Your task to perform on an android device: View the shopping cart on amazon.com. Add jbl charge 4 to the cart on amazon.com Image 0: 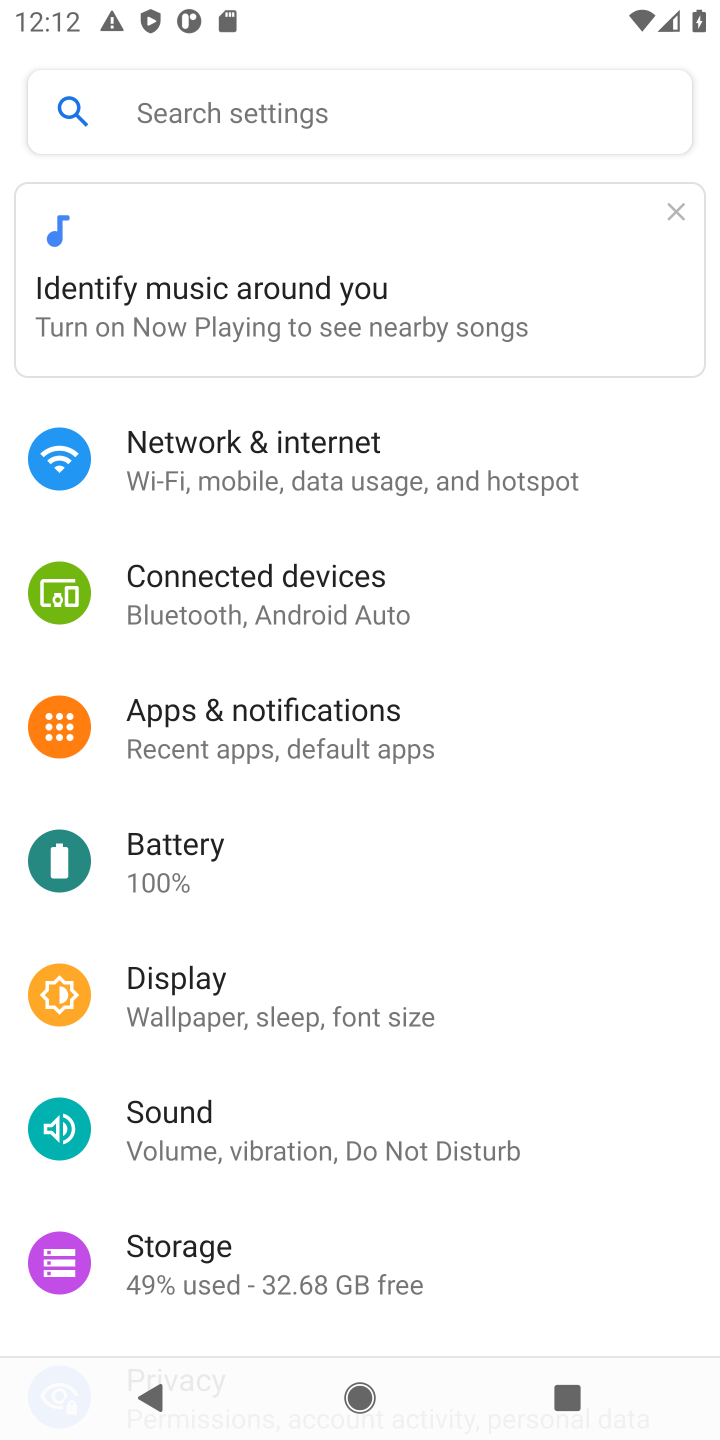
Step 0: press home button
Your task to perform on an android device: View the shopping cart on amazon.com. Add jbl charge 4 to the cart on amazon.com Image 1: 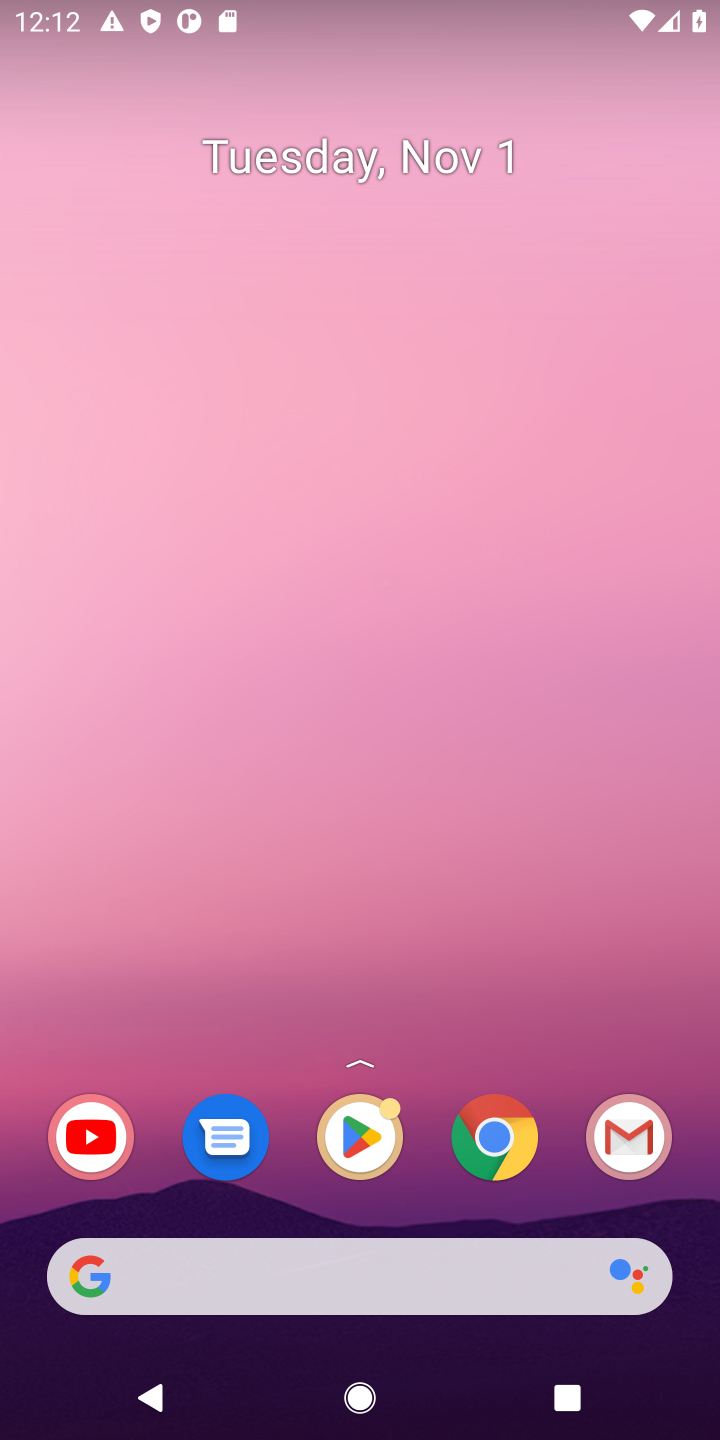
Step 1: click (482, 1111)
Your task to perform on an android device: View the shopping cart on amazon.com. Add jbl charge 4 to the cart on amazon.com Image 2: 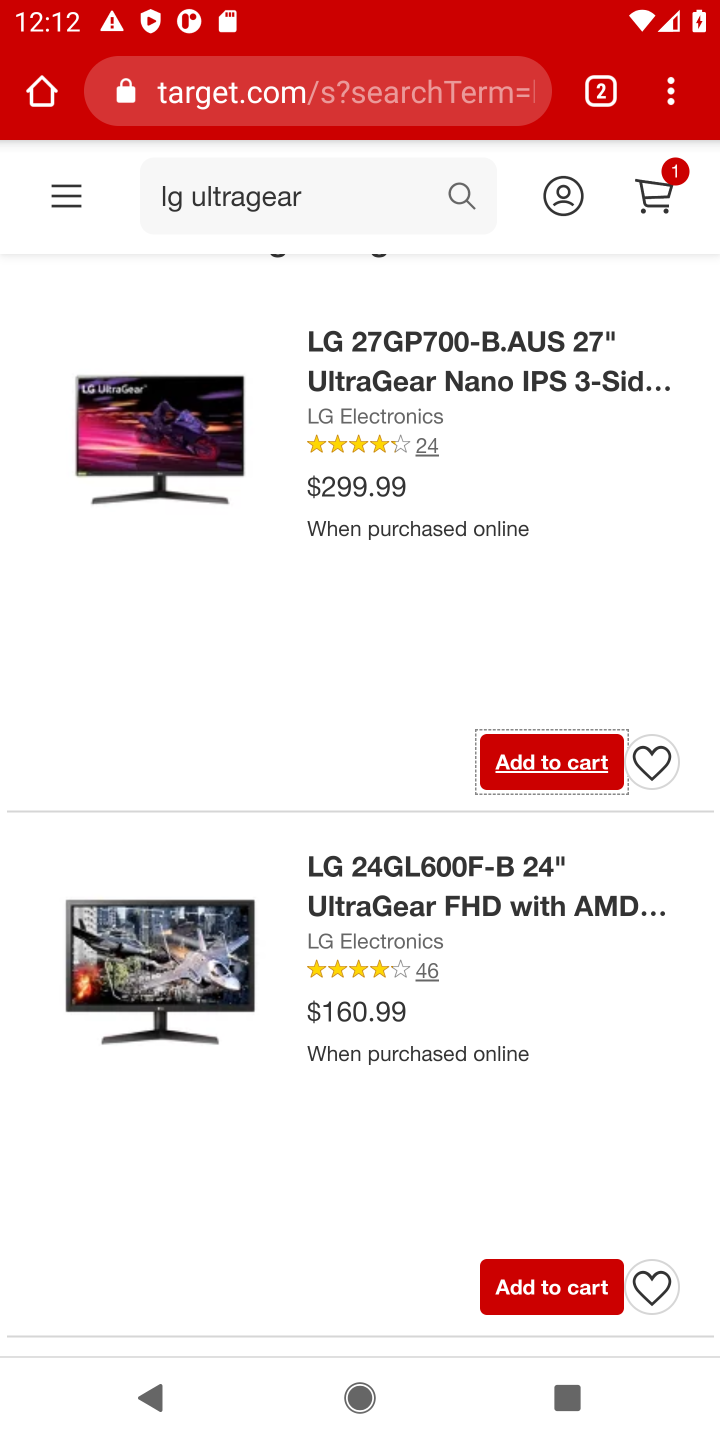
Step 2: click (597, 94)
Your task to perform on an android device: View the shopping cart on amazon.com. Add jbl charge 4 to the cart on amazon.com Image 3: 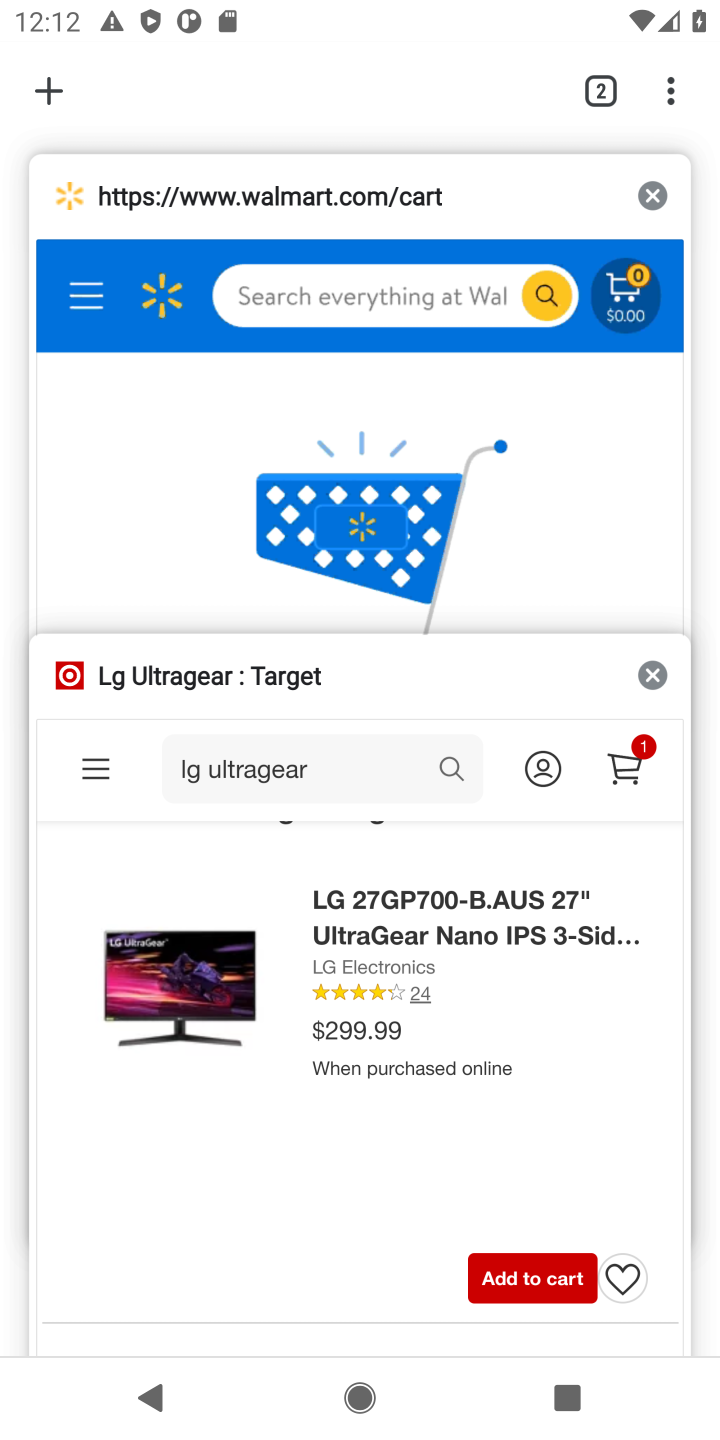
Step 3: click (47, 94)
Your task to perform on an android device: View the shopping cart on amazon.com. Add jbl charge 4 to the cart on amazon.com Image 4: 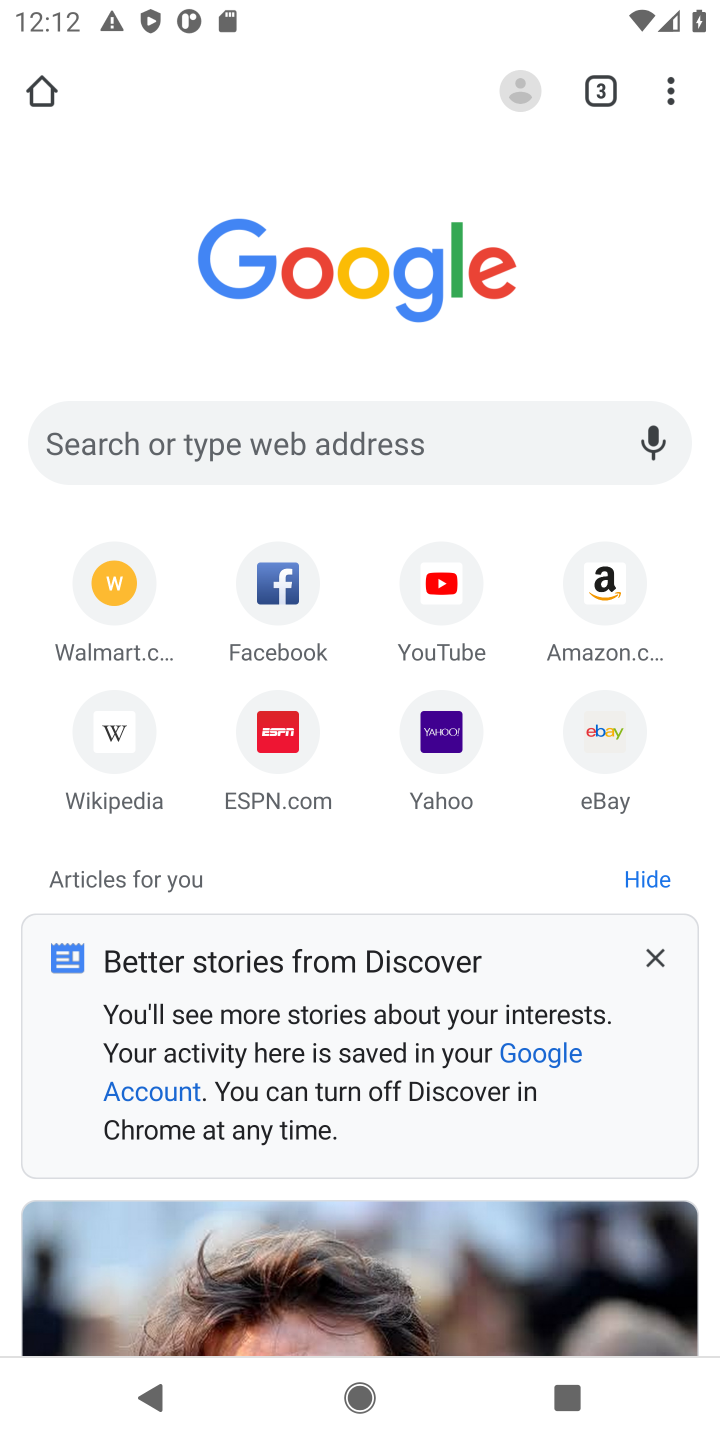
Step 4: click (620, 575)
Your task to perform on an android device: View the shopping cart on amazon.com. Add jbl charge 4 to the cart on amazon.com Image 5: 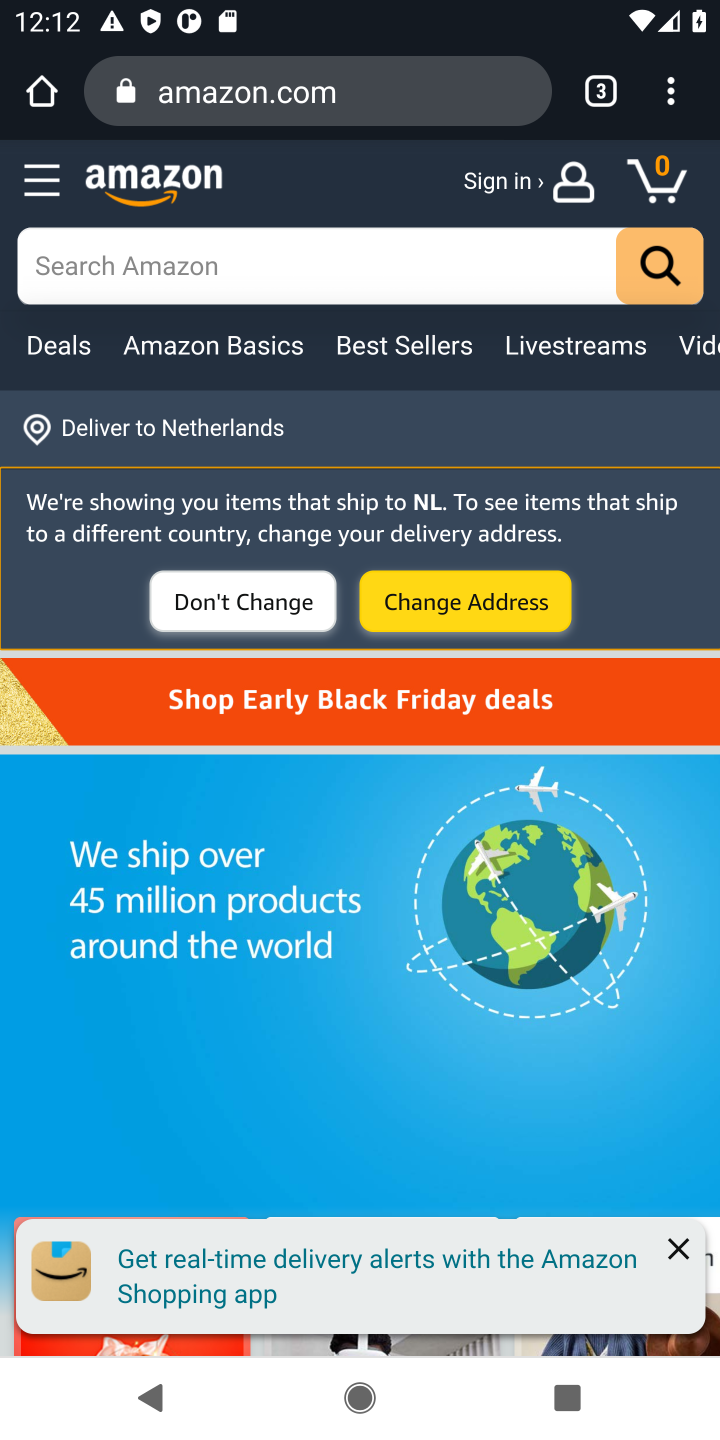
Step 5: click (167, 256)
Your task to perform on an android device: View the shopping cart on amazon.com. Add jbl charge 4 to the cart on amazon.com Image 6: 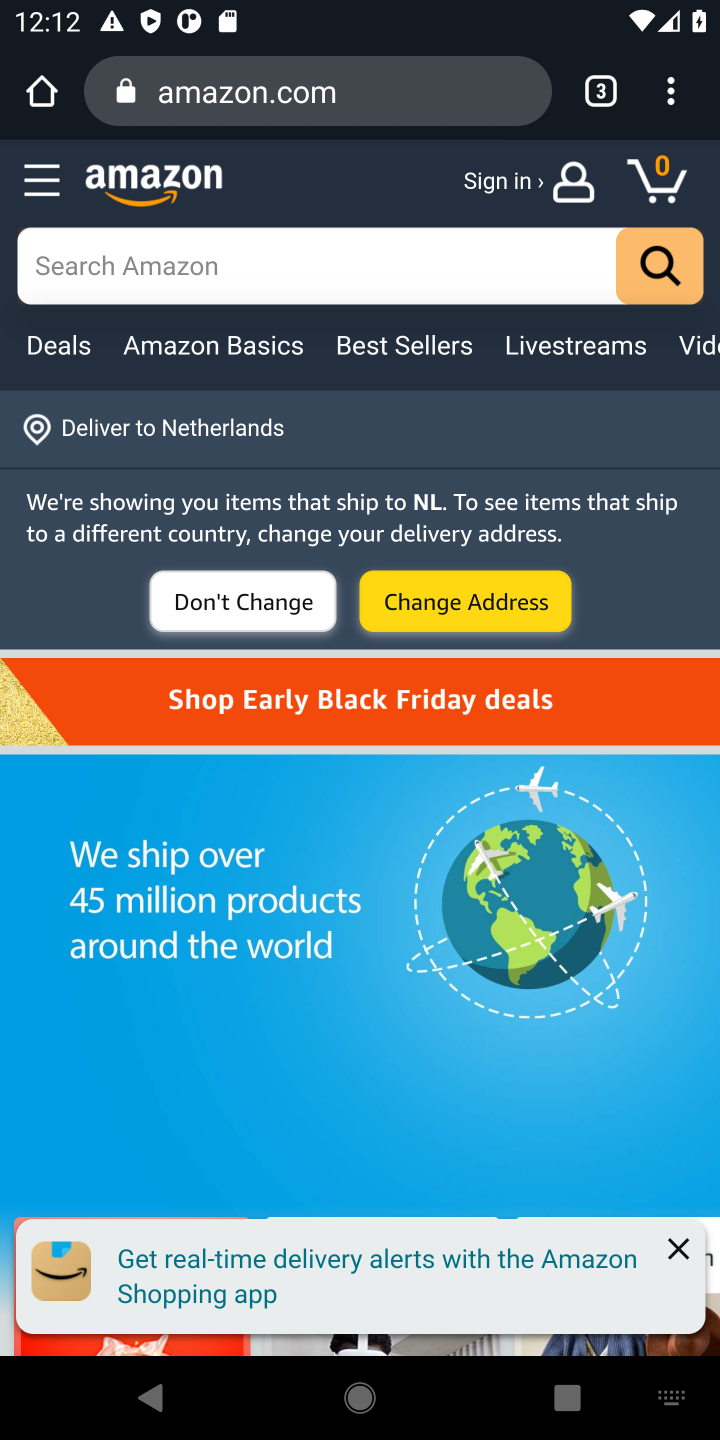
Step 6: type "jbl charge 4"
Your task to perform on an android device: View the shopping cart on amazon.com. Add jbl charge 4 to the cart on amazon.com Image 7: 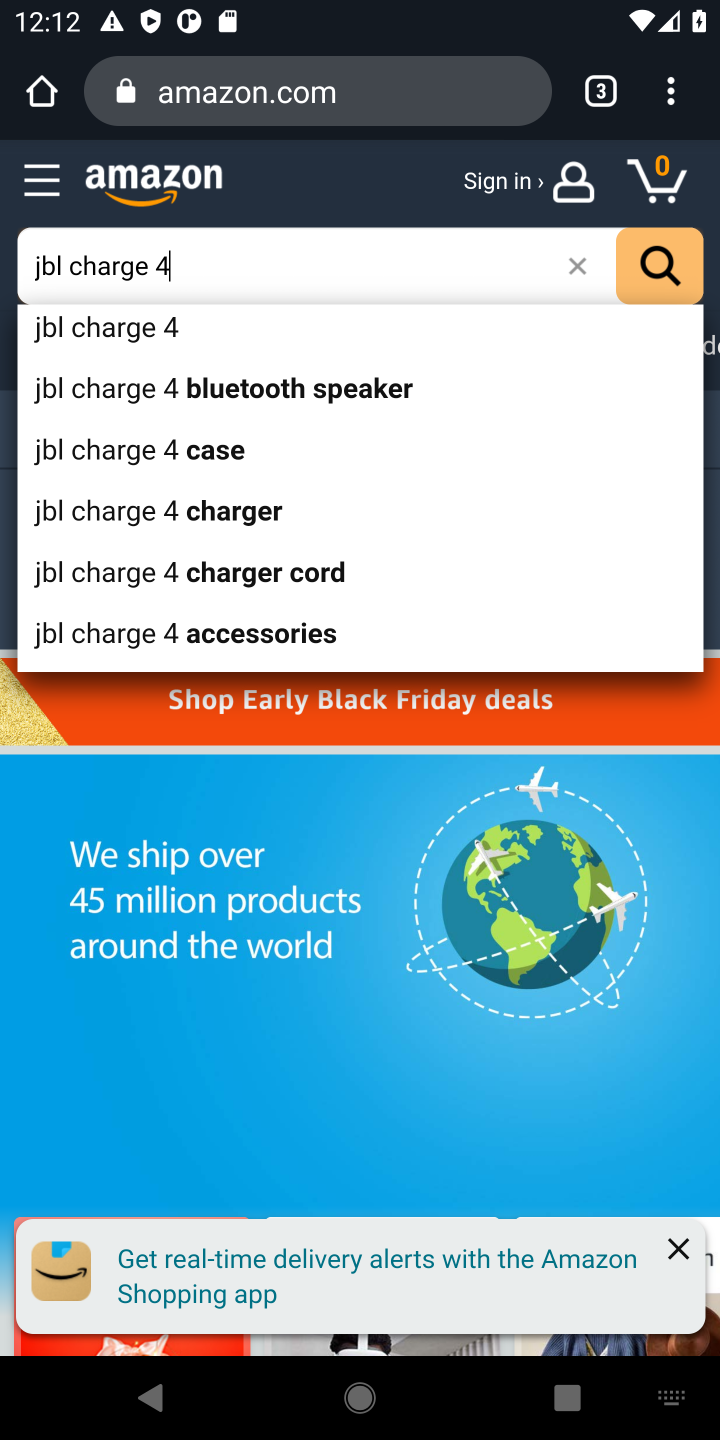
Step 7: click (98, 327)
Your task to perform on an android device: View the shopping cart on amazon.com. Add jbl charge 4 to the cart on amazon.com Image 8: 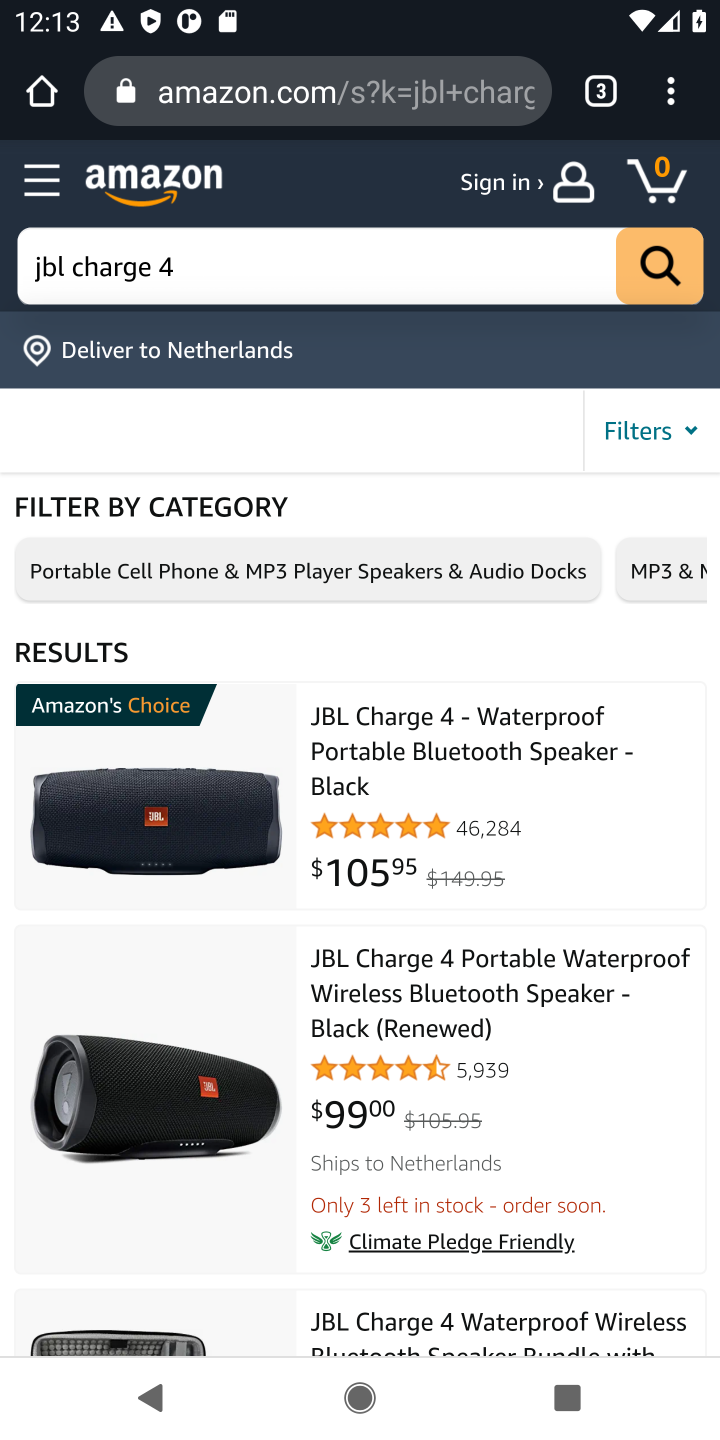
Step 8: click (432, 739)
Your task to perform on an android device: View the shopping cart on amazon.com. Add jbl charge 4 to the cart on amazon.com Image 9: 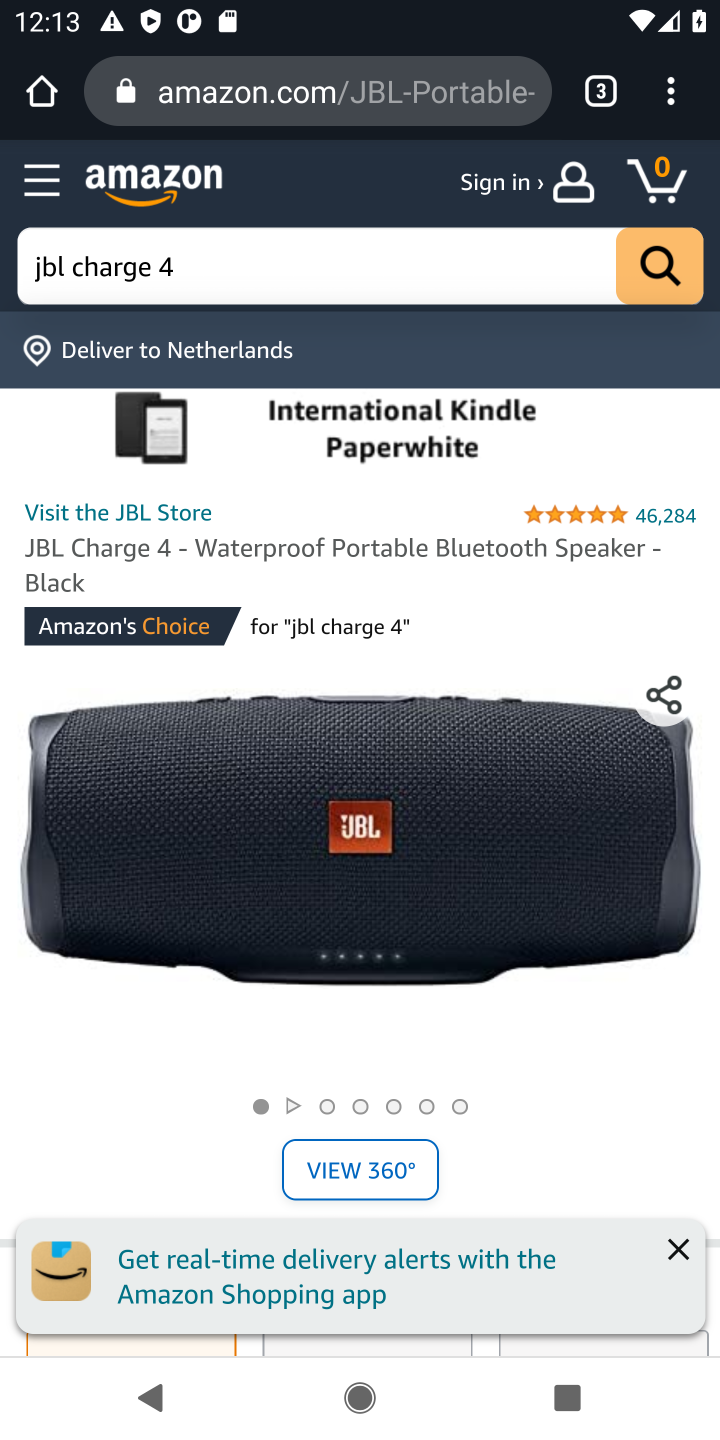
Step 9: click (682, 1240)
Your task to perform on an android device: View the shopping cart on amazon.com. Add jbl charge 4 to the cart on amazon.com Image 10: 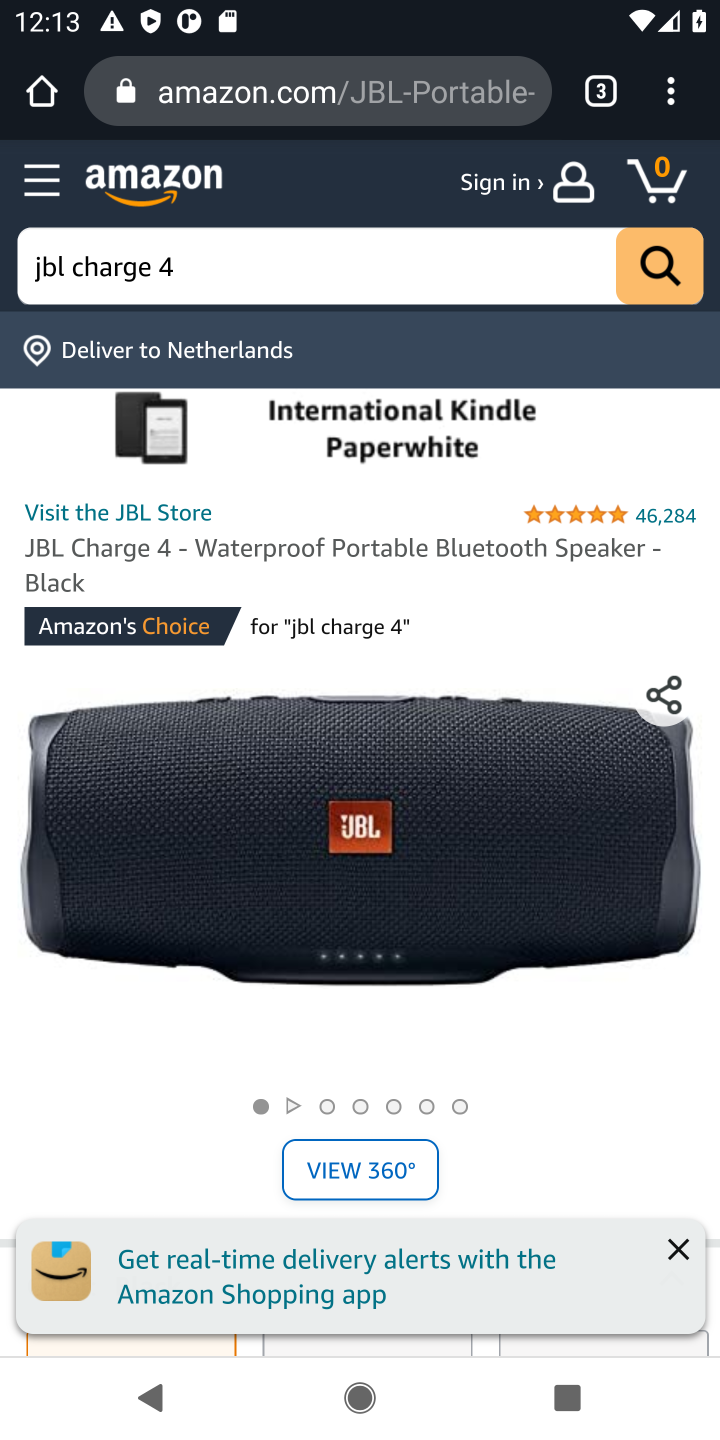
Step 10: drag from (527, 516) to (628, 185)
Your task to perform on an android device: View the shopping cart on amazon.com. Add jbl charge 4 to the cart on amazon.com Image 11: 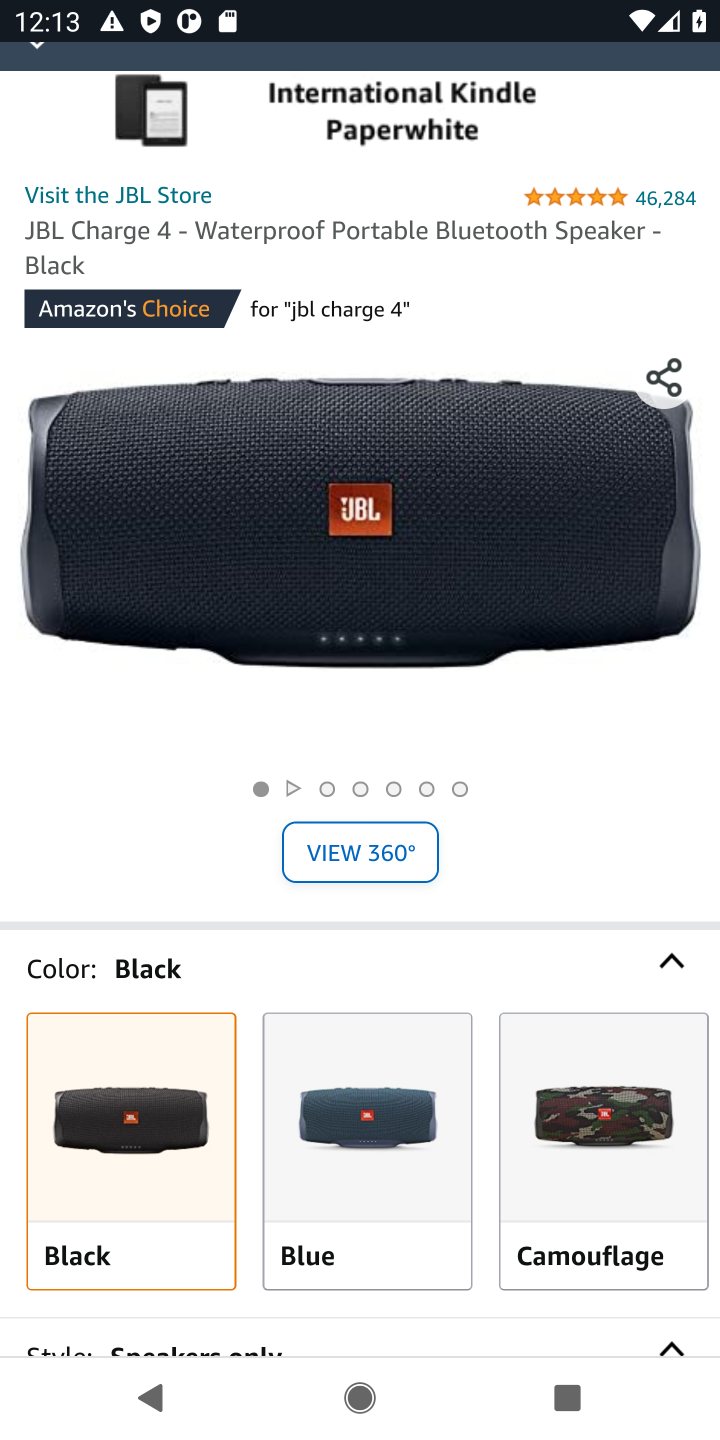
Step 11: drag from (367, 1137) to (551, 144)
Your task to perform on an android device: View the shopping cart on amazon.com. Add jbl charge 4 to the cart on amazon.com Image 12: 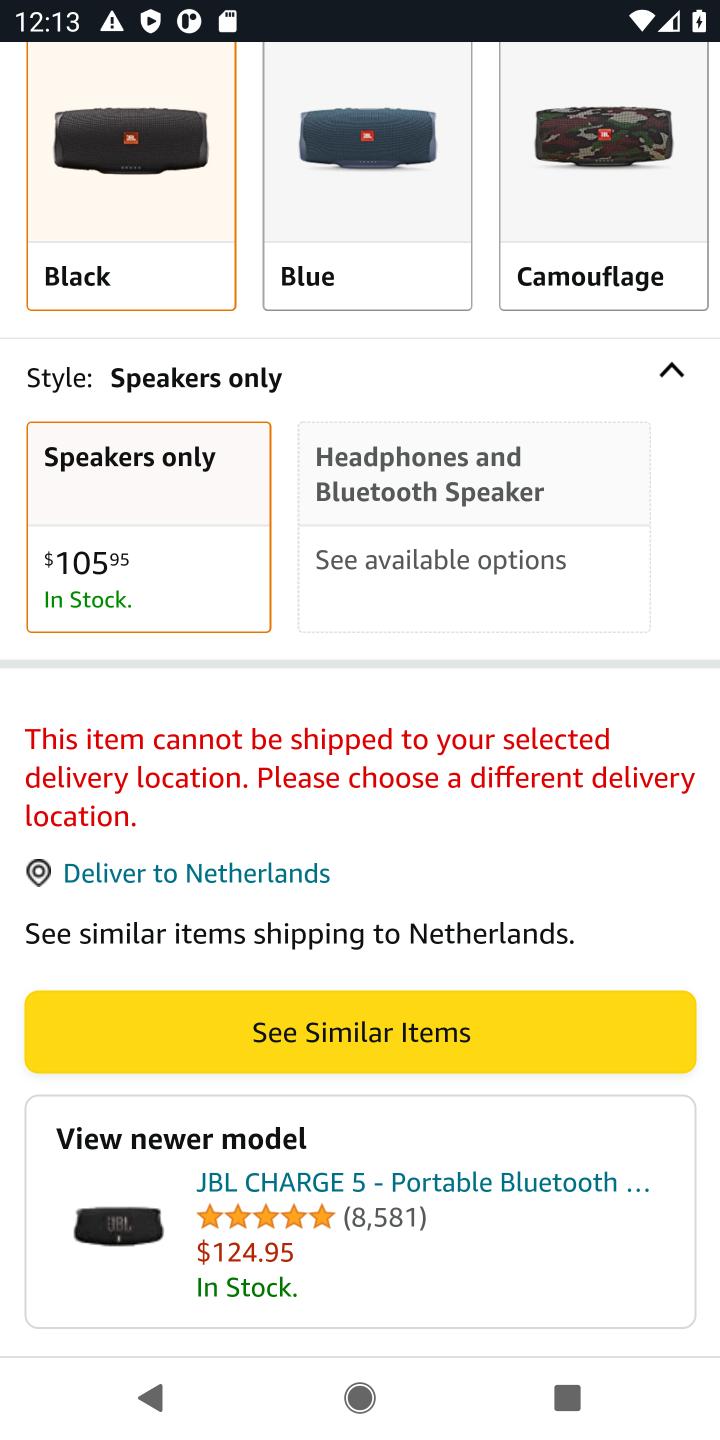
Step 12: drag from (390, 1146) to (469, 219)
Your task to perform on an android device: View the shopping cart on amazon.com. Add jbl charge 4 to the cart on amazon.com Image 13: 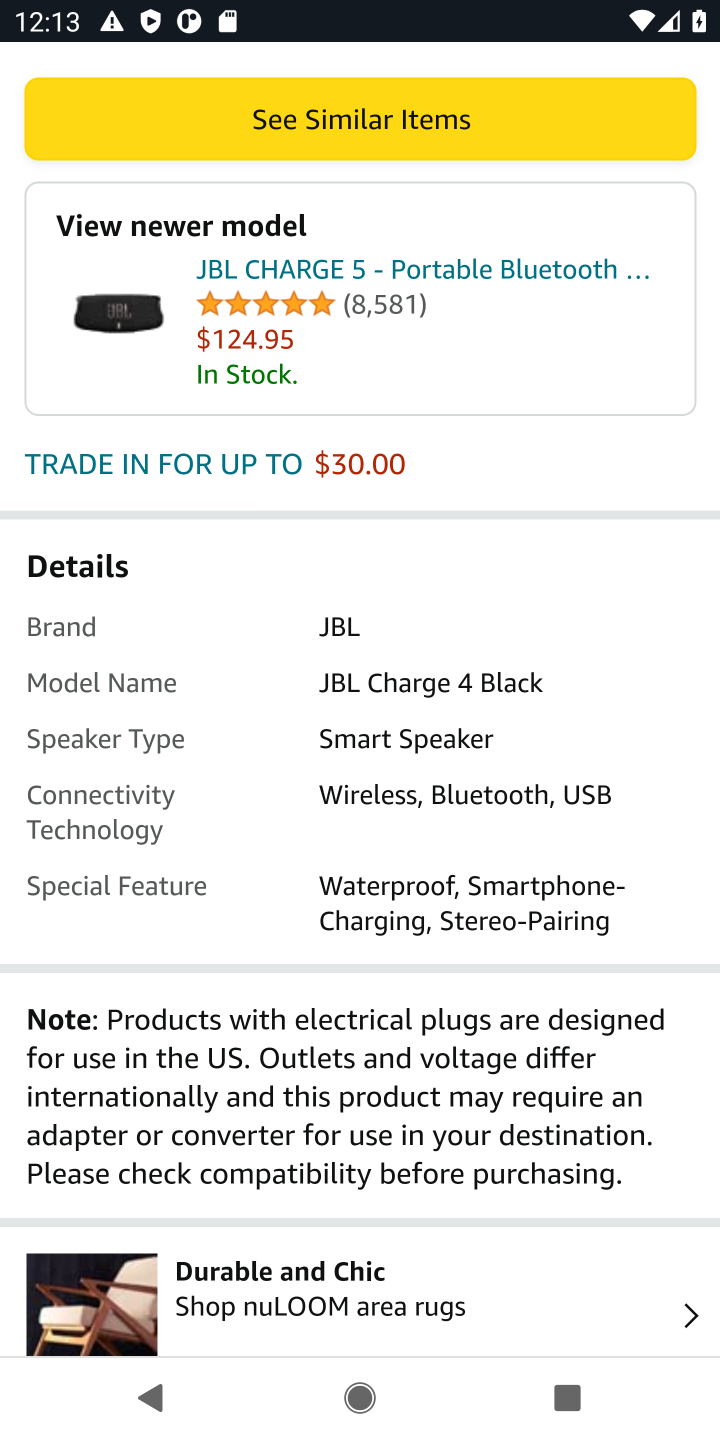
Step 13: drag from (324, 942) to (402, 60)
Your task to perform on an android device: View the shopping cart on amazon.com. Add jbl charge 4 to the cart on amazon.com Image 14: 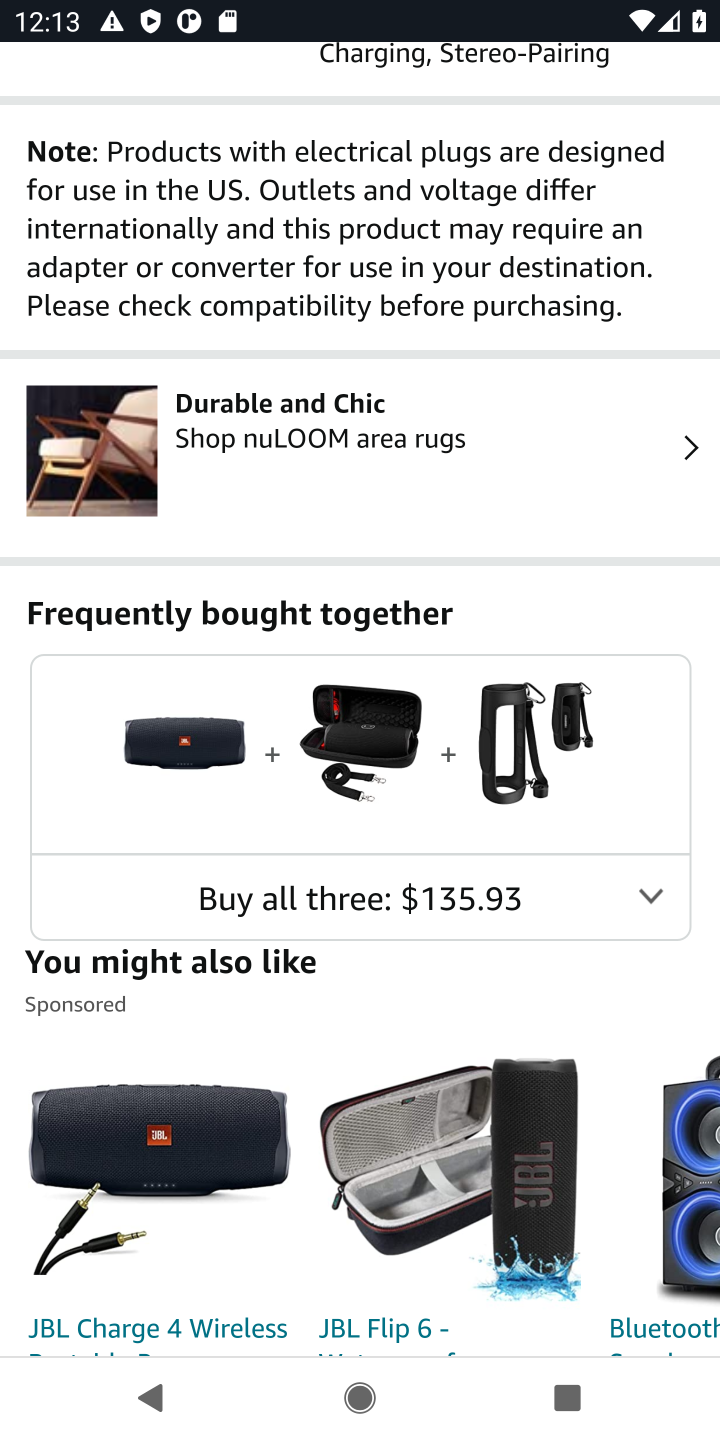
Step 14: drag from (468, 372) to (607, 1263)
Your task to perform on an android device: View the shopping cart on amazon.com. Add jbl charge 4 to the cart on amazon.com Image 15: 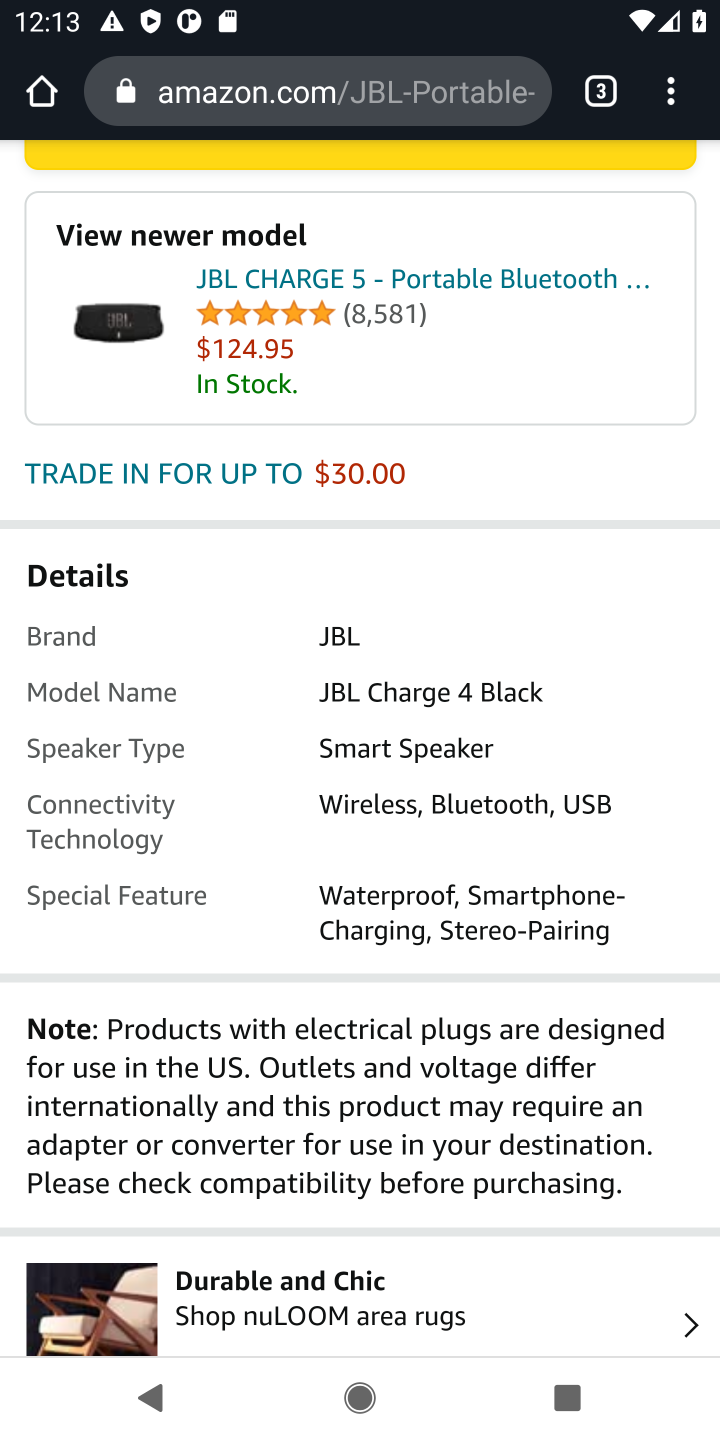
Step 15: drag from (454, 386) to (399, 1057)
Your task to perform on an android device: View the shopping cart on amazon.com. Add jbl charge 4 to the cart on amazon.com Image 16: 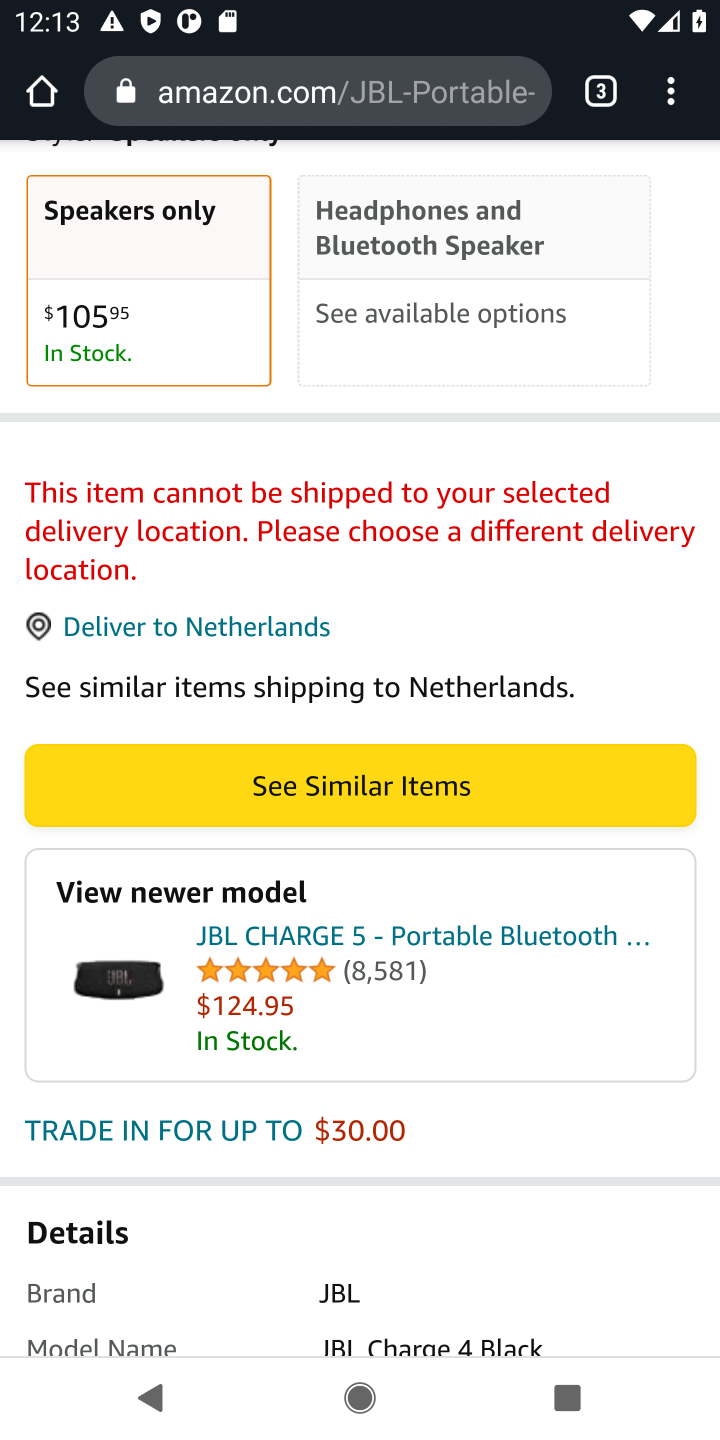
Step 16: click (392, 765)
Your task to perform on an android device: View the shopping cart on amazon.com. Add jbl charge 4 to the cart on amazon.com Image 17: 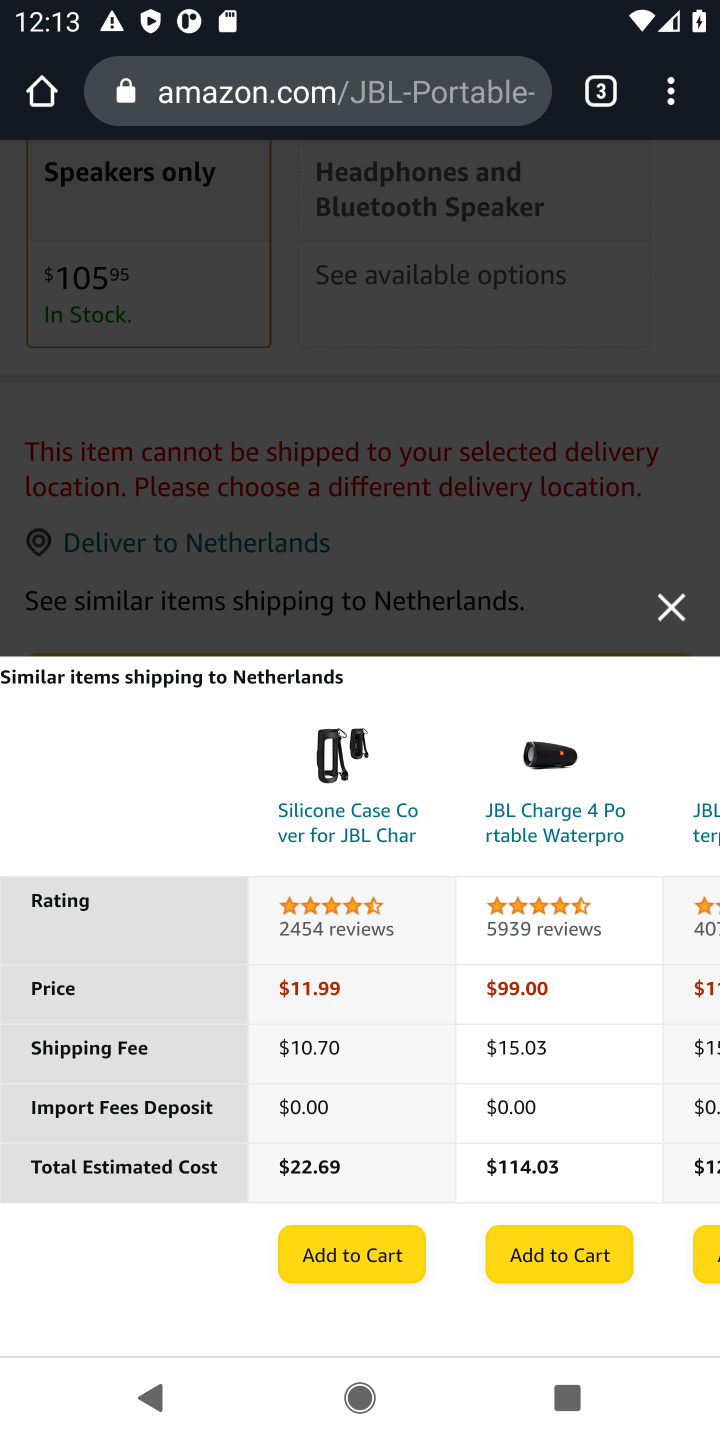
Step 17: click (351, 1251)
Your task to perform on an android device: View the shopping cart on amazon.com. Add jbl charge 4 to the cart on amazon.com Image 18: 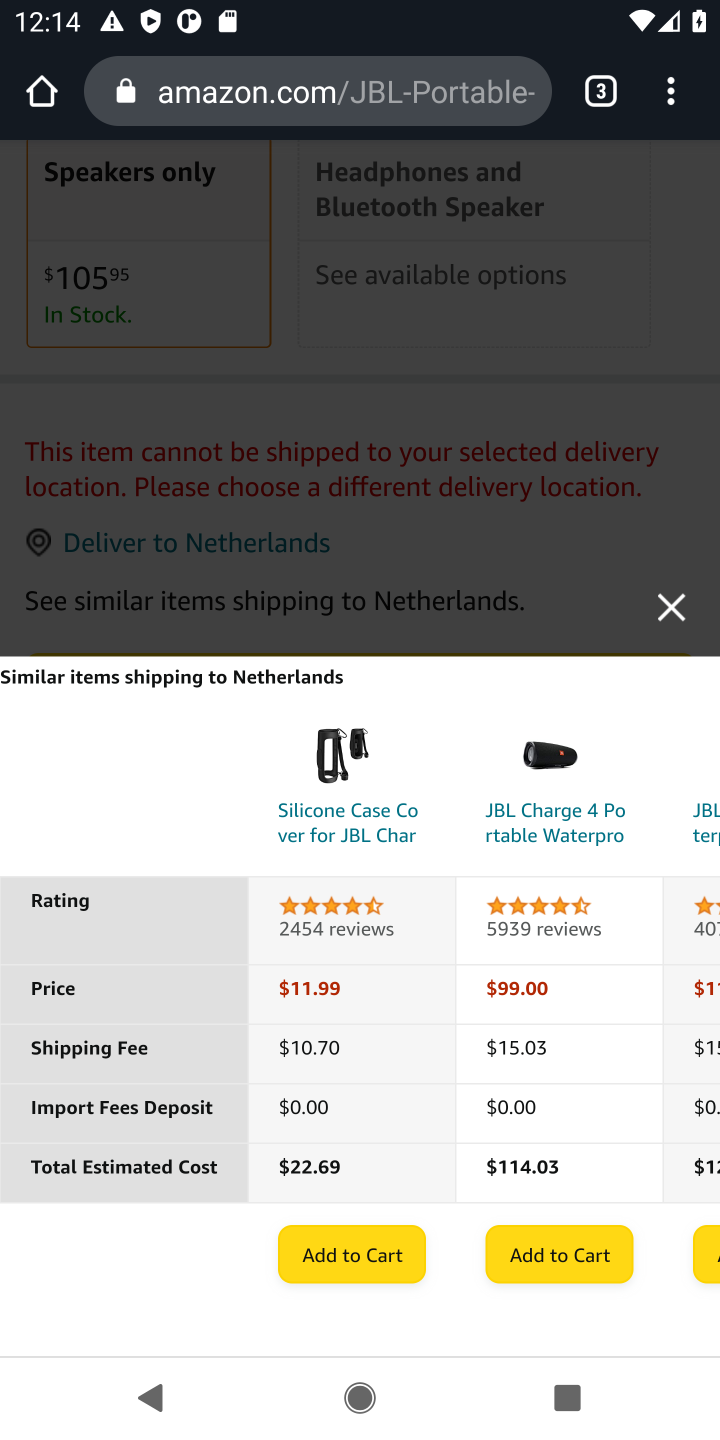
Step 18: click (558, 1254)
Your task to perform on an android device: View the shopping cart on amazon.com. Add jbl charge 4 to the cart on amazon.com Image 19: 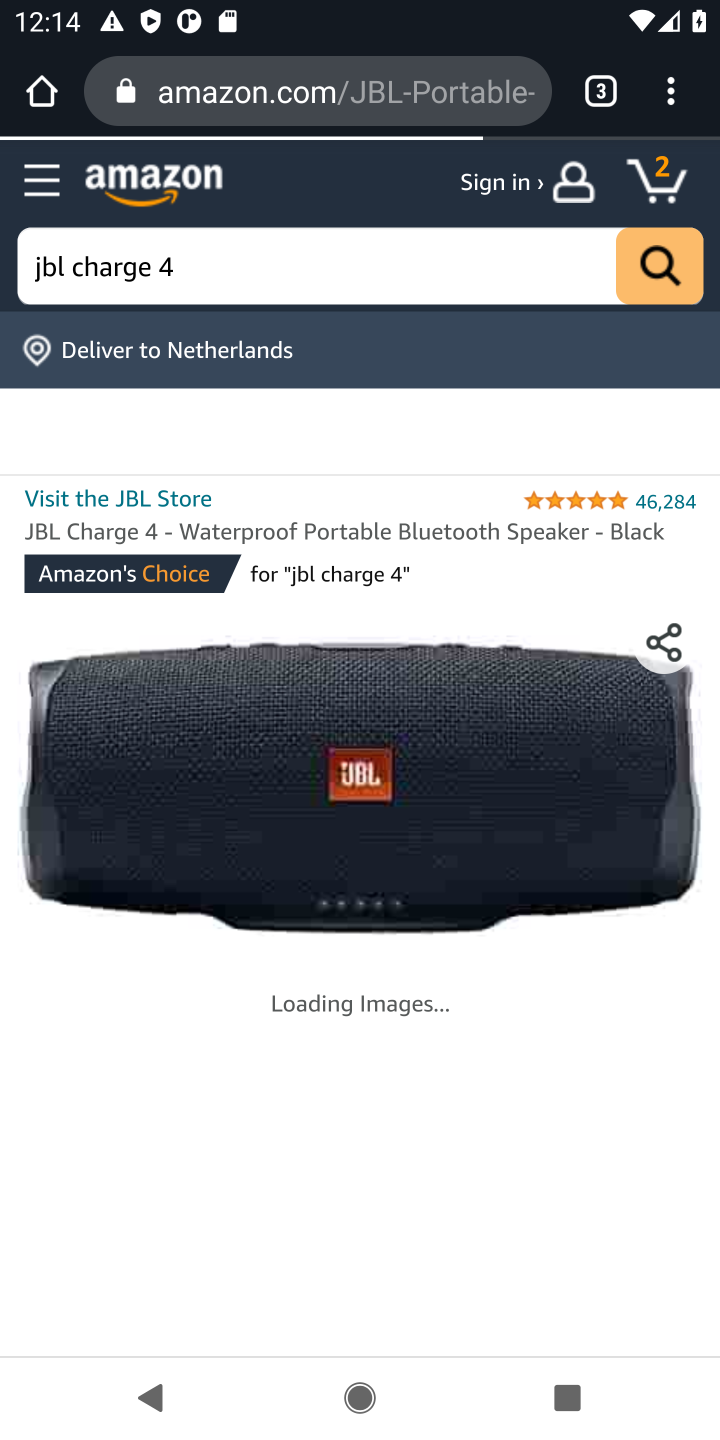
Step 19: task complete